Your task to perform on an android device: change timer sound Image 0: 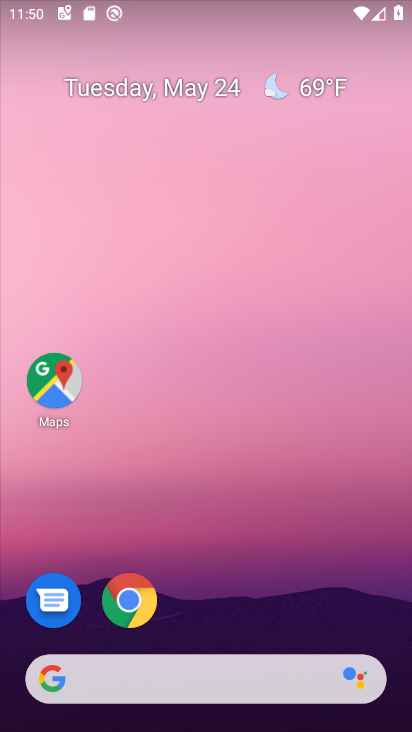
Step 0: drag from (379, 629) to (390, 271)
Your task to perform on an android device: change timer sound Image 1: 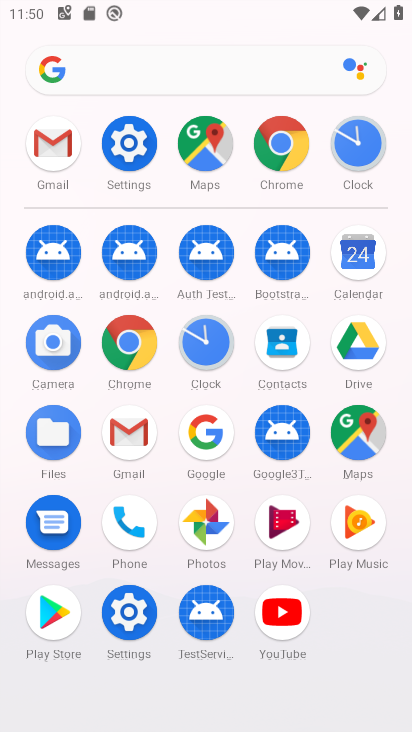
Step 1: click (204, 351)
Your task to perform on an android device: change timer sound Image 2: 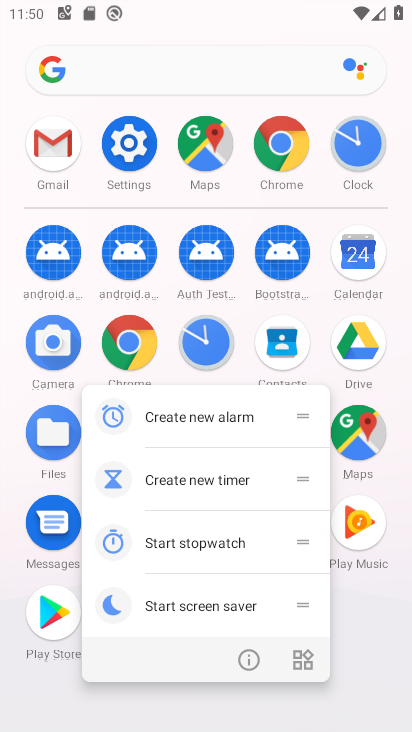
Step 2: click (204, 351)
Your task to perform on an android device: change timer sound Image 3: 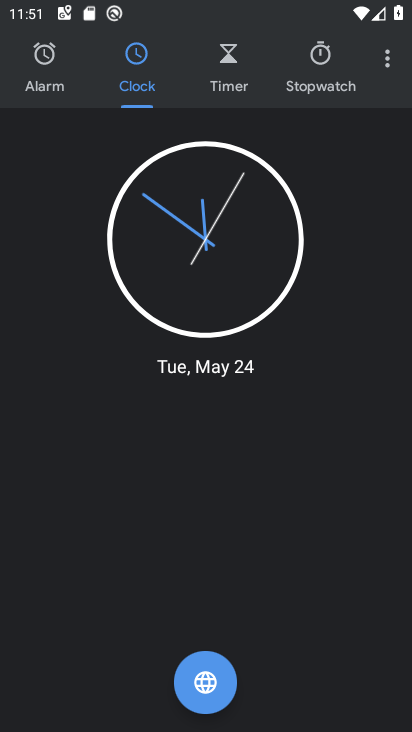
Step 3: click (387, 66)
Your task to perform on an android device: change timer sound Image 4: 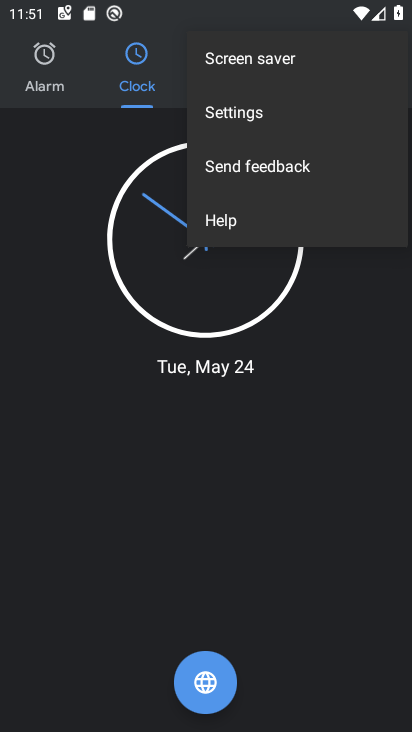
Step 4: click (313, 115)
Your task to perform on an android device: change timer sound Image 5: 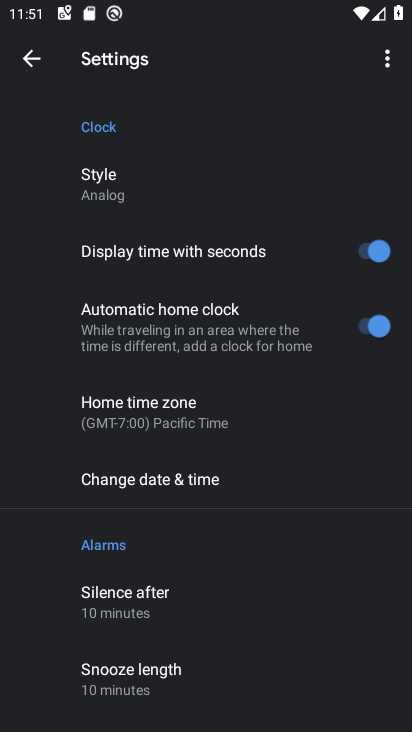
Step 5: drag from (306, 527) to (323, 416)
Your task to perform on an android device: change timer sound Image 6: 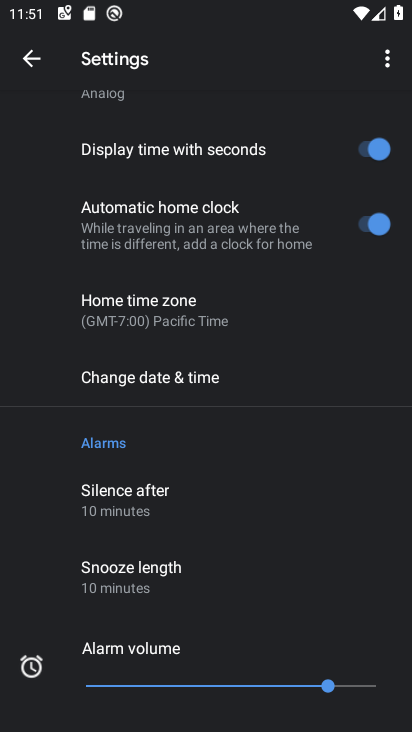
Step 6: drag from (325, 545) to (321, 441)
Your task to perform on an android device: change timer sound Image 7: 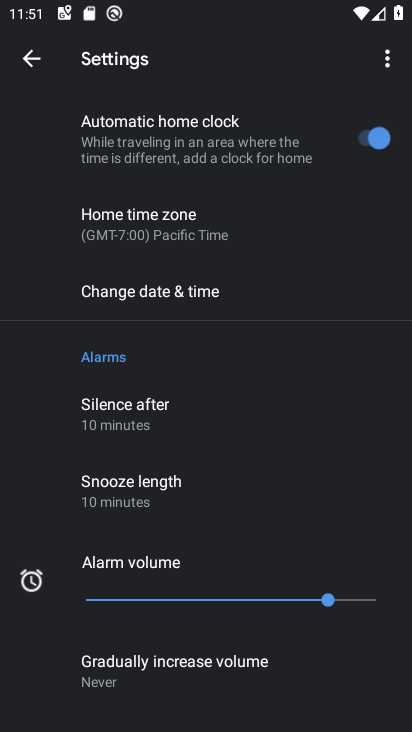
Step 7: drag from (321, 556) to (342, 450)
Your task to perform on an android device: change timer sound Image 8: 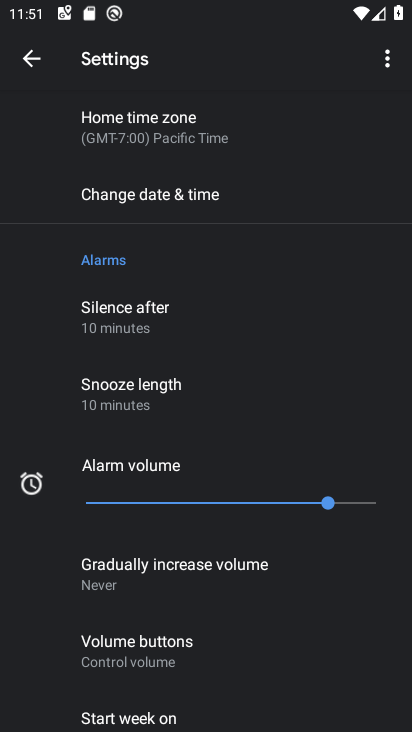
Step 8: drag from (340, 584) to (354, 479)
Your task to perform on an android device: change timer sound Image 9: 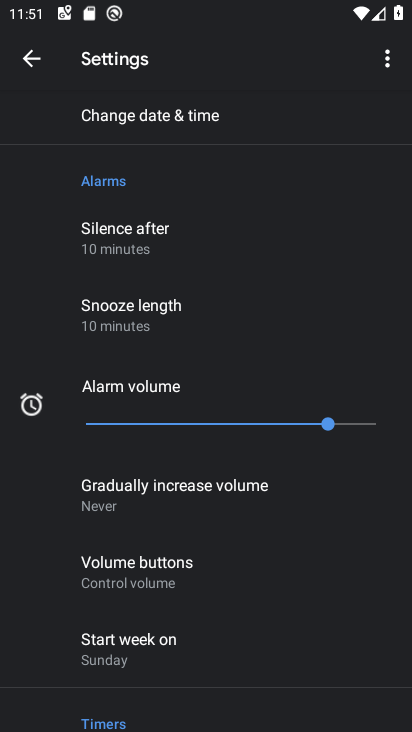
Step 9: drag from (354, 594) to (354, 514)
Your task to perform on an android device: change timer sound Image 10: 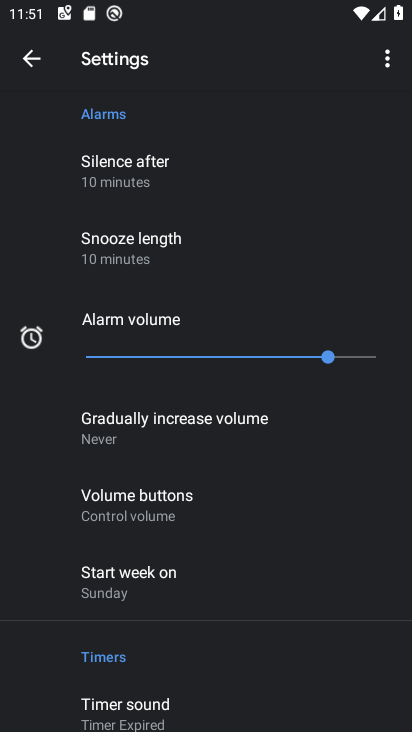
Step 10: drag from (358, 630) to (350, 554)
Your task to perform on an android device: change timer sound Image 11: 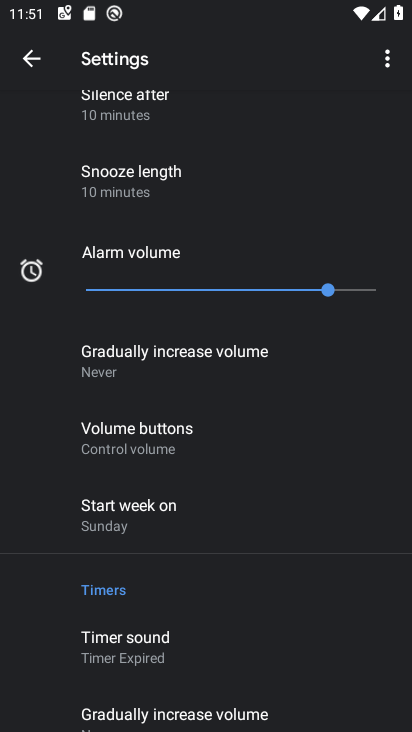
Step 11: drag from (343, 630) to (341, 544)
Your task to perform on an android device: change timer sound Image 12: 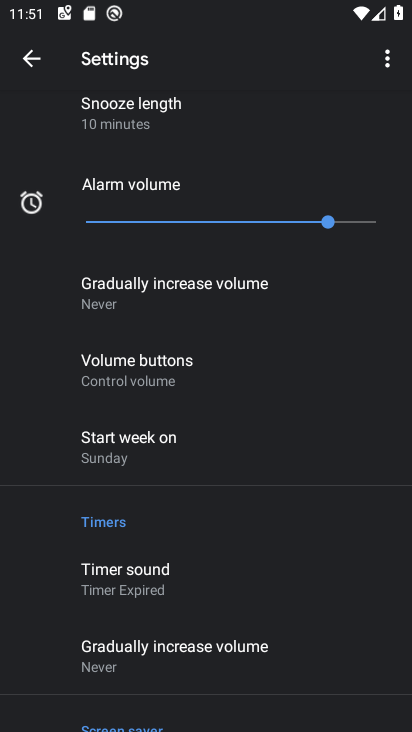
Step 12: drag from (346, 639) to (340, 522)
Your task to perform on an android device: change timer sound Image 13: 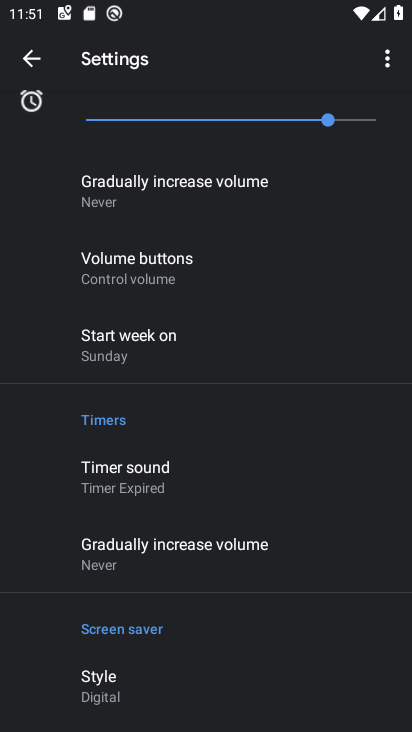
Step 13: drag from (344, 635) to (341, 525)
Your task to perform on an android device: change timer sound Image 14: 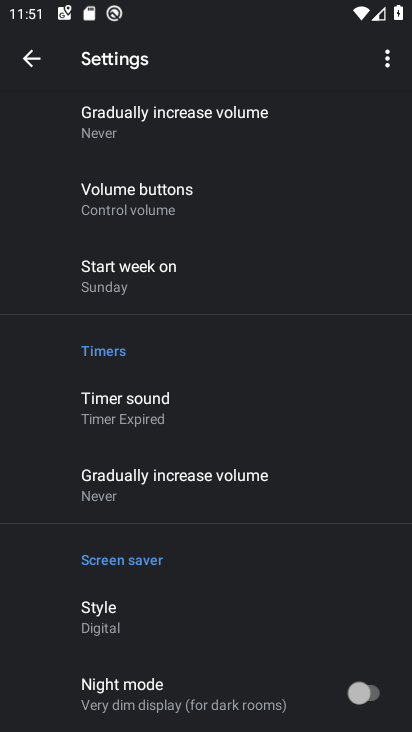
Step 14: drag from (316, 402) to (307, 498)
Your task to perform on an android device: change timer sound Image 15: 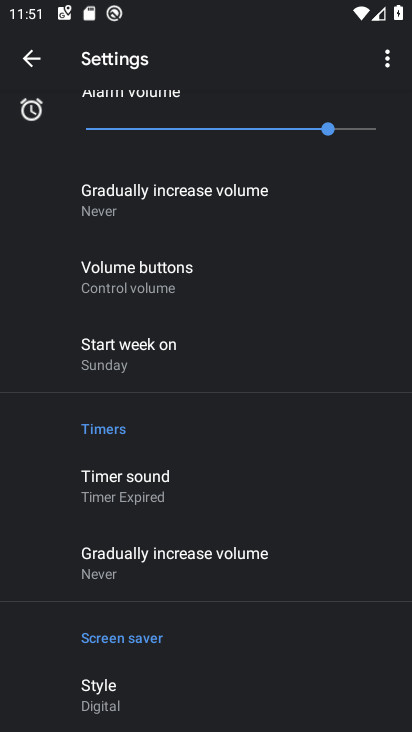
Step 15: drag from (315, 410) to (317, 476)
Your task to perform on an android device: change timer sound Image 16: 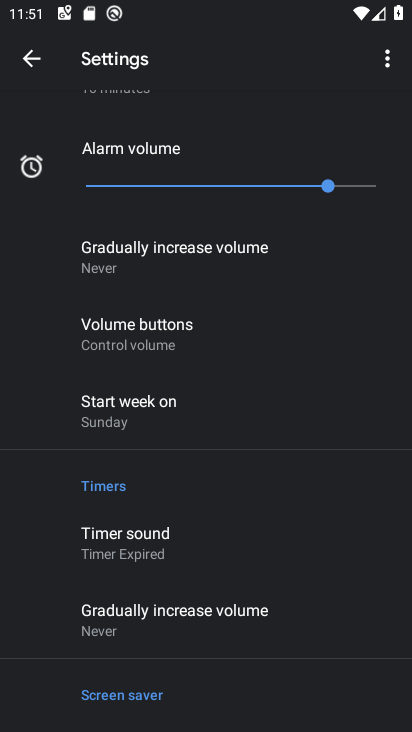
Step 16: click (198, 549)
Your task to perform on an android device: change timer sound Image 17: 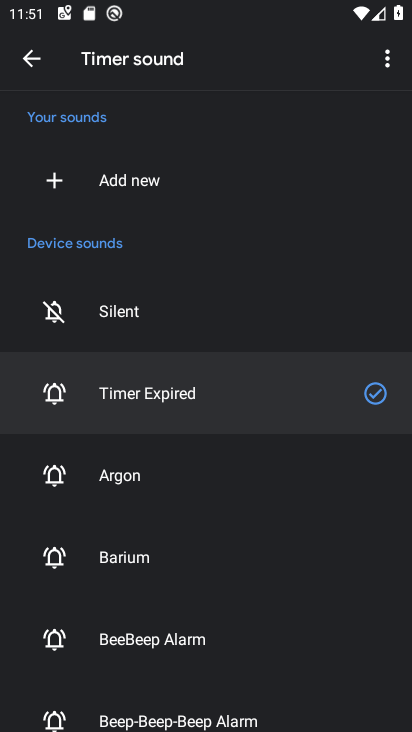
Step 17: click (184, 484)
Your task to perform on an android device: change timer sound Image 18: 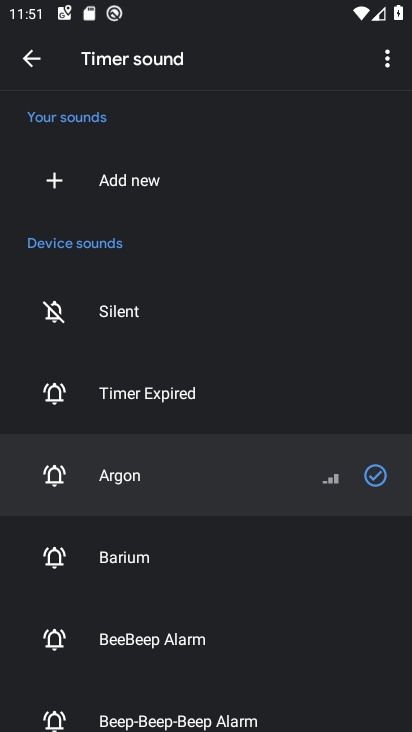
Step 18: task complete